Your task to perform on an android device: Open maps Image 0: 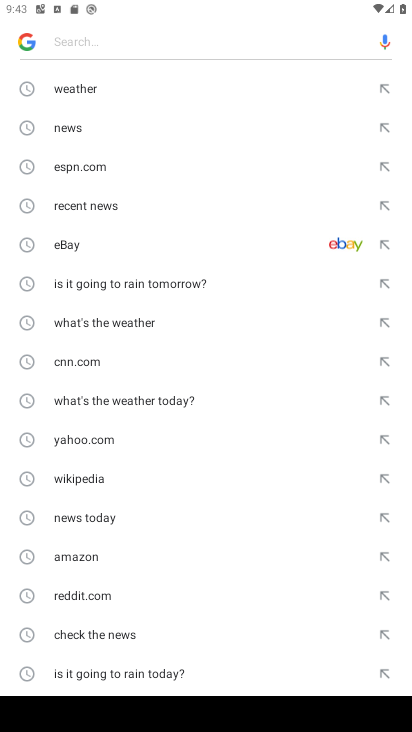
Step 0: press home button
Your task to perform on an android device: Open maps Image 1: 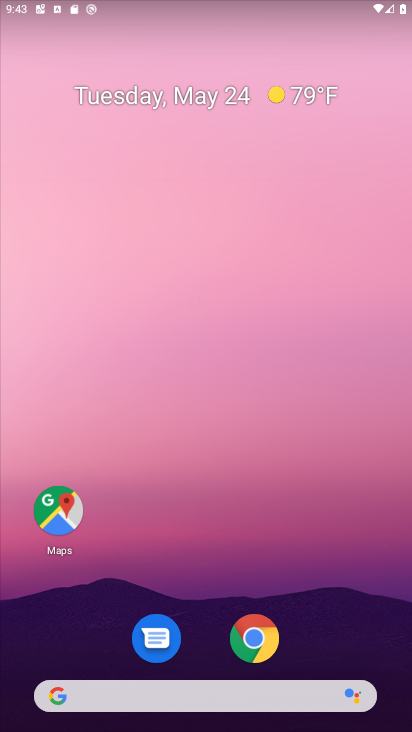
Step 1: click (65, 514)
Your task to perform on an android device: Open maps Image 2: 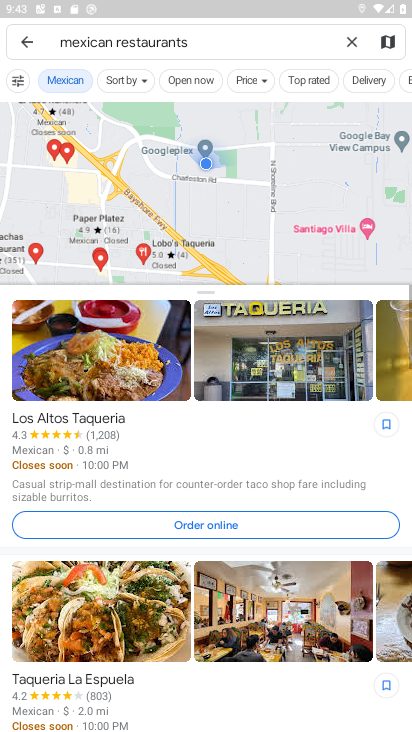
Step 2: task complete